Your task to perform on an android device: Open wifi settings Image 0: 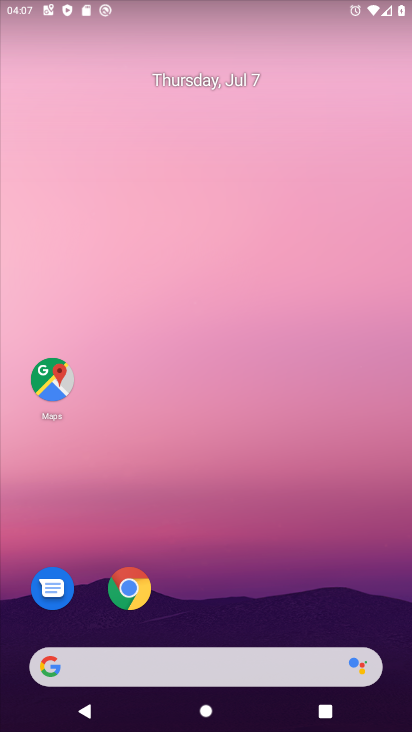
Step 0: drag from (229, 643) to (262, 240)
Your task to perform on an android device: Open wifi settings Image 1: 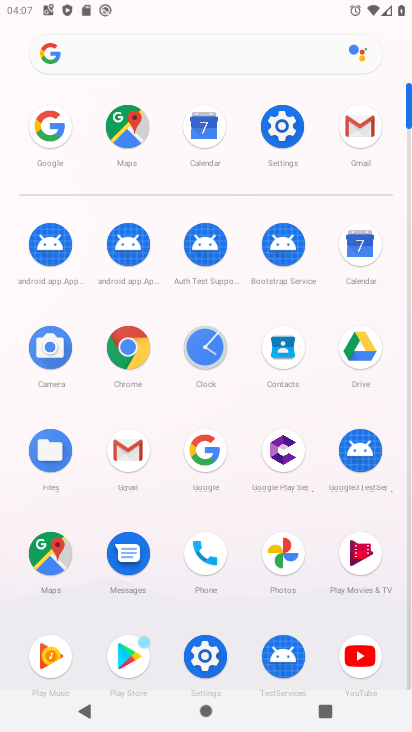
Step 1: click (279, 124)
Your task to perform on an android device: Open wifi settings Image 2: 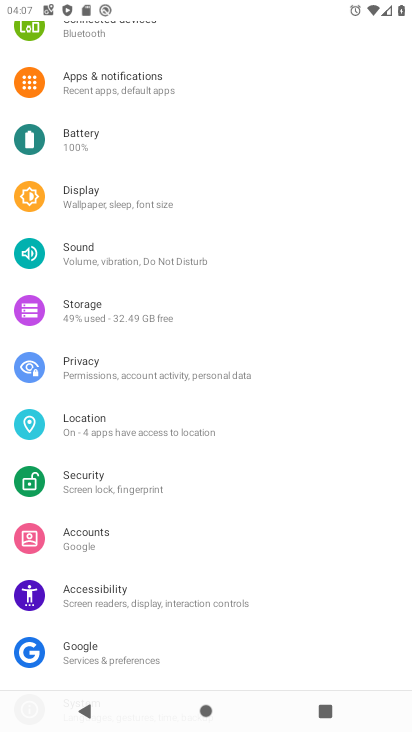
Step 2: drag from (209, 96) to (247, 479)
Your task to perform on an android device: Open wifi settings Image 3: 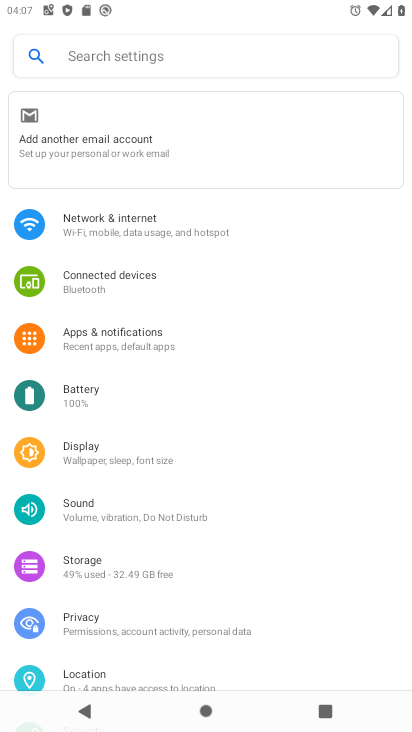
Step 3: click (141, 218)
Your task to perform on an android device: Open wifi settings Image 4: 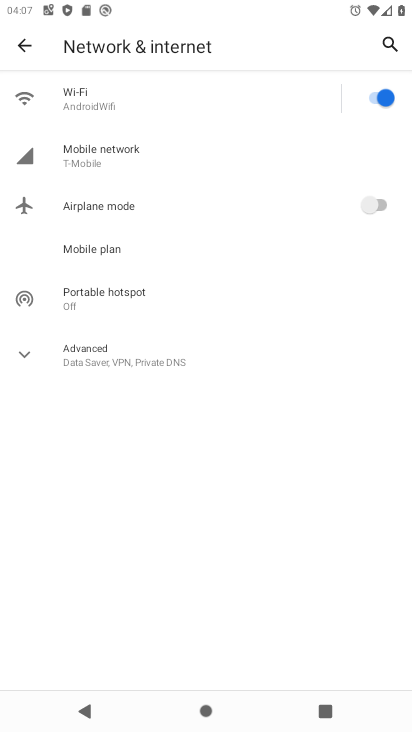
Step 4: click (80, 95)
Your task to perform on an android device: Open wifi settings Image 5: 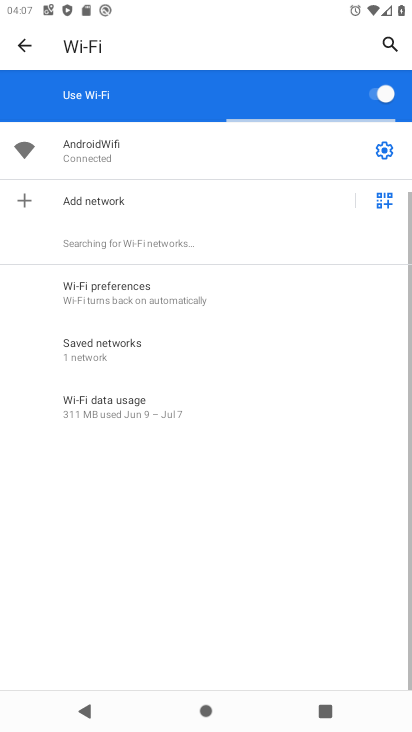
Step 5: click (380, 148)
Your task to perform on an android device: Open wifi settings Image 6: 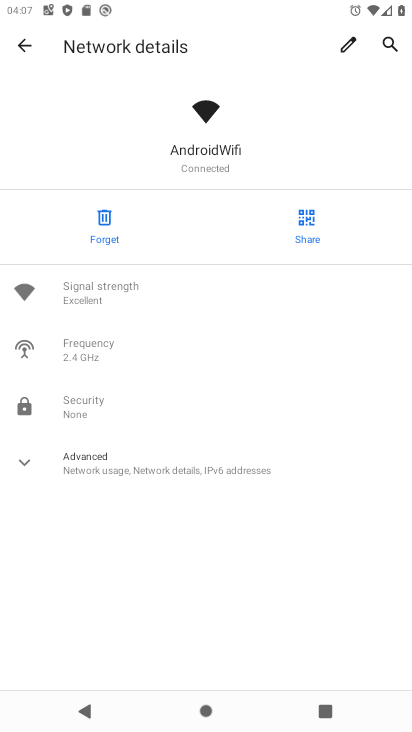
Step 6: click (102, 460)
Your task to perform on an android device: Open wifi settings Image 7: 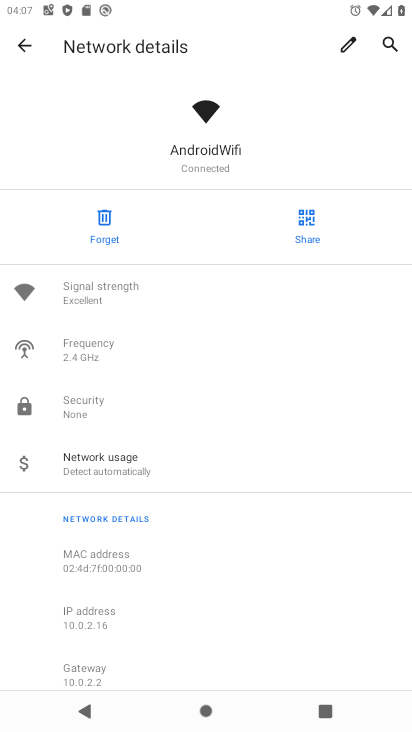
Step 7: task complete